Your task to perform on an android device: See recent photos Image 0: 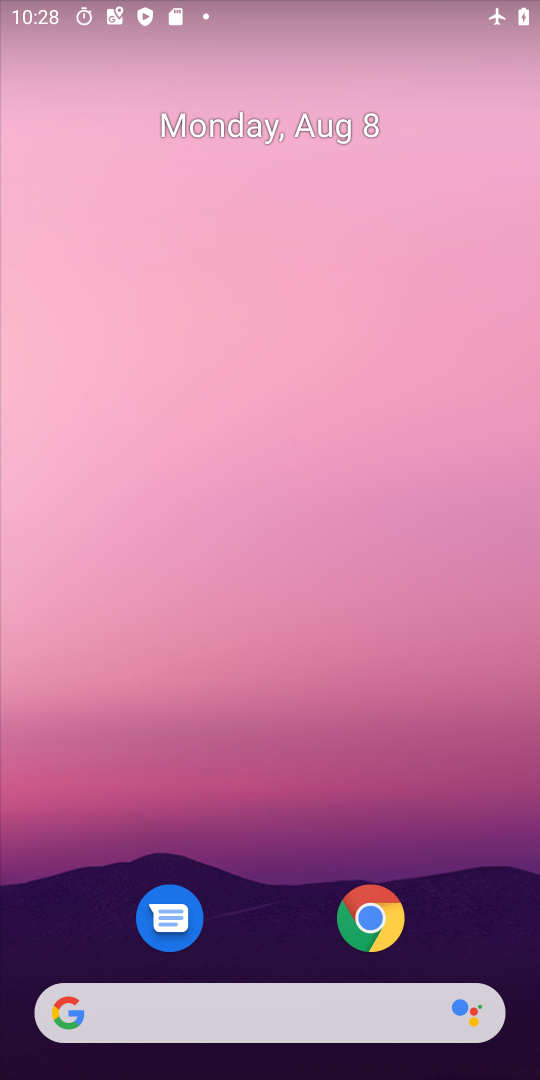
Step 0: drag from (296, 969) to (227, 16)
Your task to perform on an android device: See recent photos Image 1: 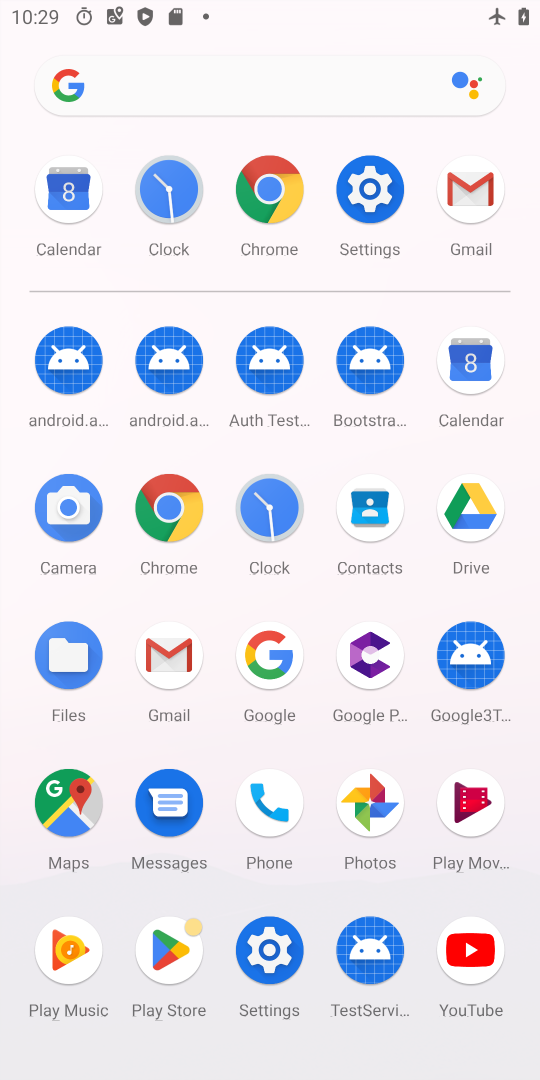
Step 1: click (372, 811)
Your task to perform on an android device: See recent photos Image 2: 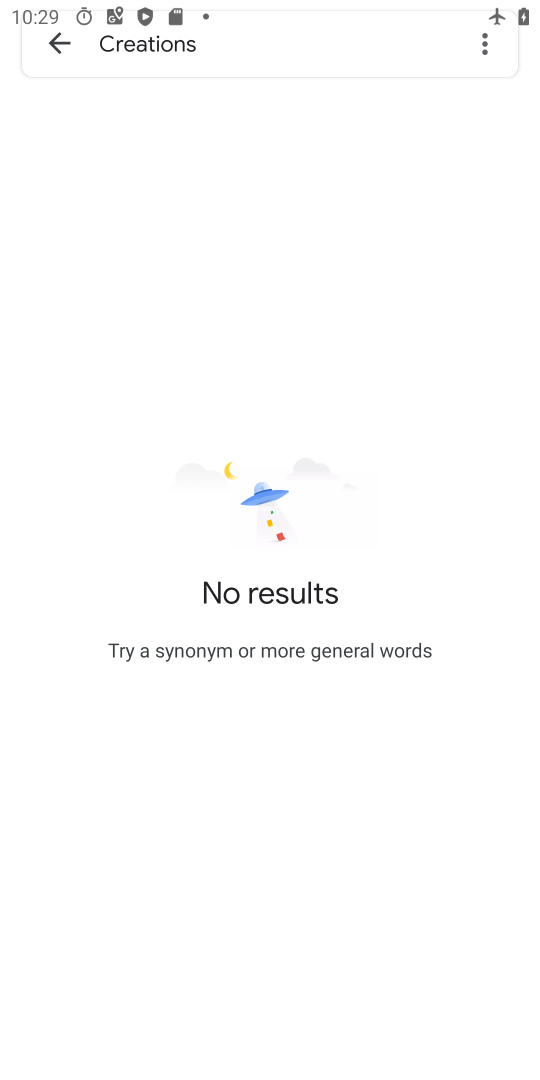
Step 2: click (55, 45)
Your task to perform on an android device: See recent photos Image 3: 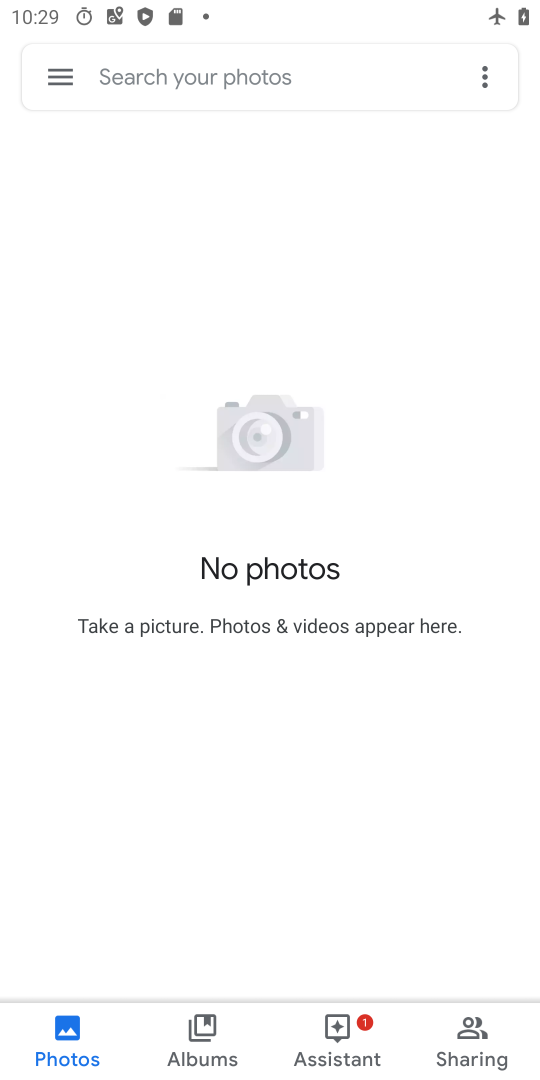
Step 3: task complete